Your task to perform on an android device: Go to Wikipedia Image 0: 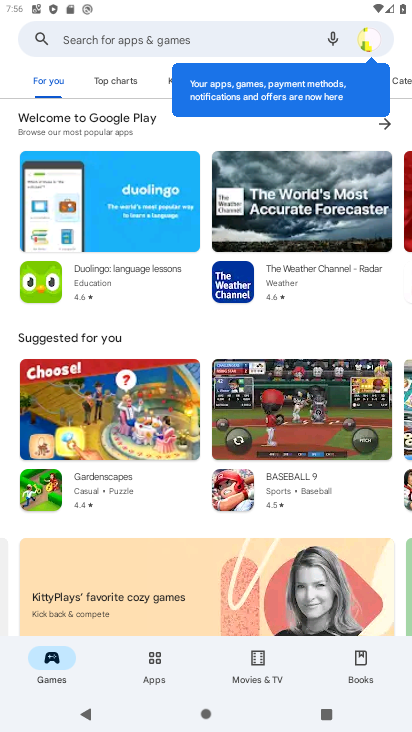
Step 0: press back button
Your task to perform on an android device: Go to Wikipedia Image 1: 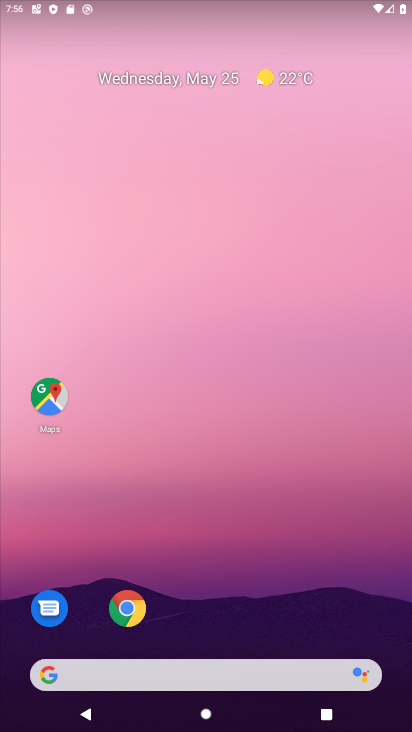
Step 1: press back button
Your task to perform on an android device: Go to Wikipedia Image 2: 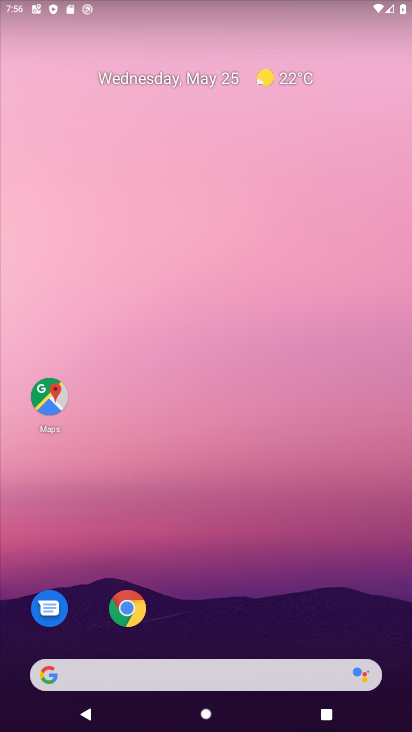
Step 2: click (128, 607)
Your task to perform on an android device: Go to Wikipedia Image 3: 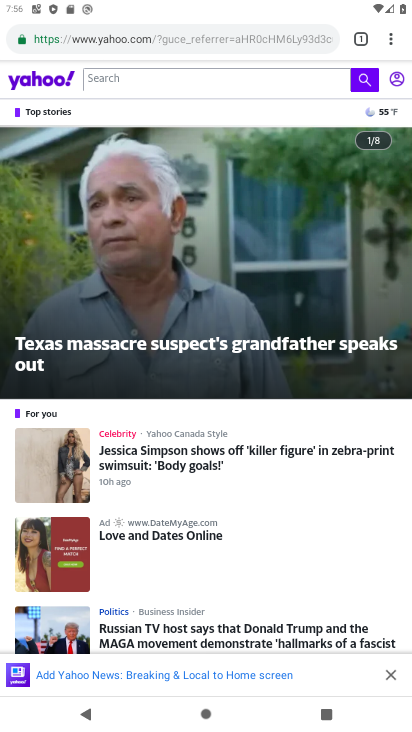
Step 3: click (244, 30)
Your task to perform on an android device: Go to Wikipedia Image 4: 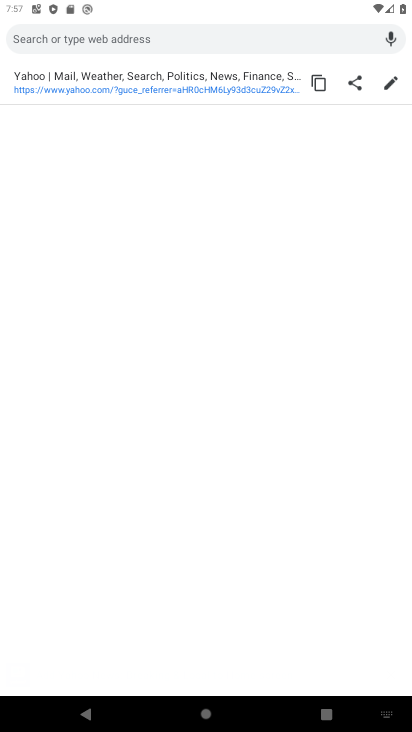
Step 4: type "Wikipedia"
Your task to perform on an android device: Go to Wikipedia Image 5: 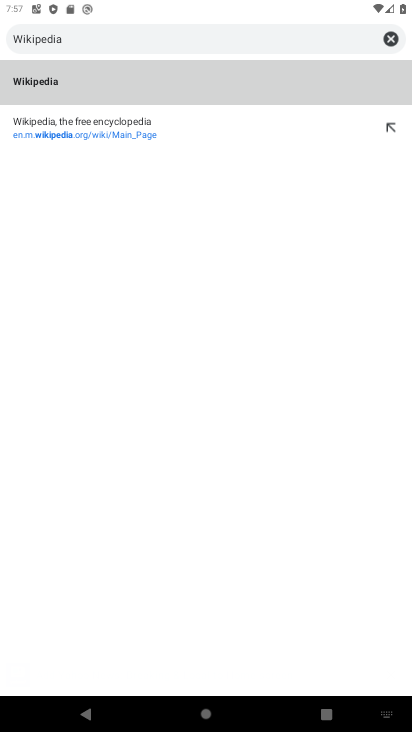
Step 5: click (45, 78)
Your task to perform on an android device: Go to Wikipedia Image 6: 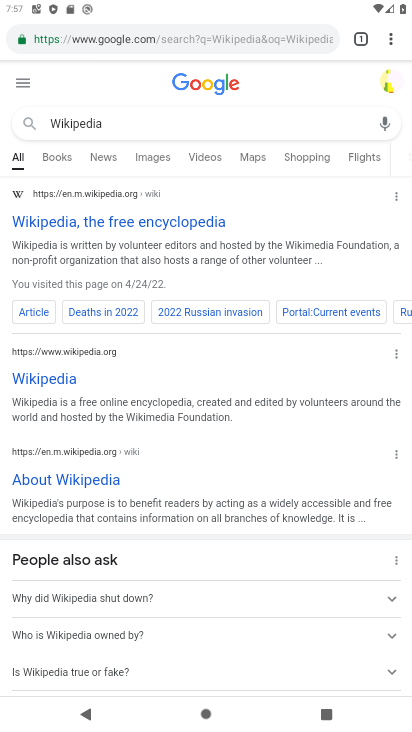
Step 6: click (72, 228)
Your task to perform on an android device: Go to Wikipedia Image 7: 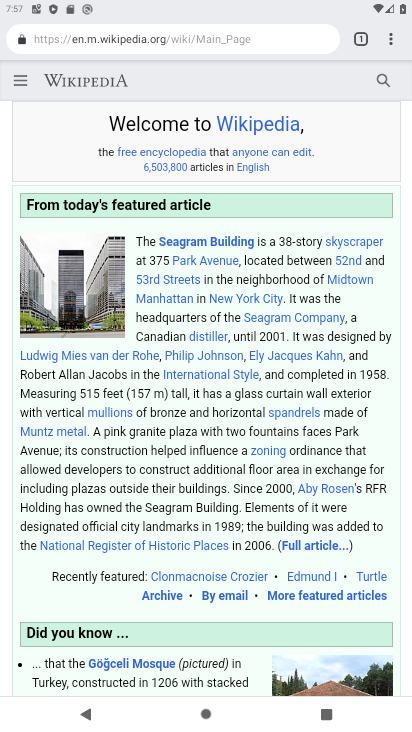
Step 7: task complete